Your task to perform on an android device: Go to Maps Image 0: 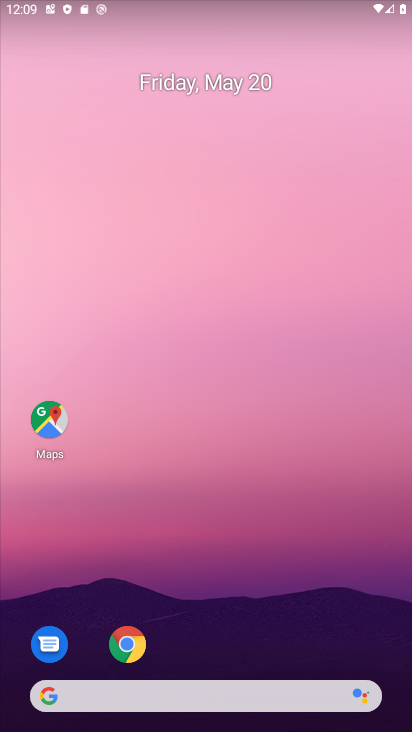
Step 0: click (52, 420)
Your task to perform on an android device: Go to Maps Image 1: 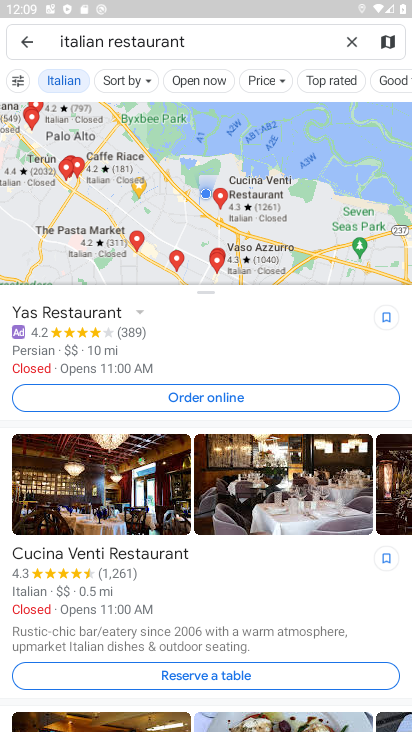
Step 1: task complete